Your task to perform on an android device: See recent photos Image 0: 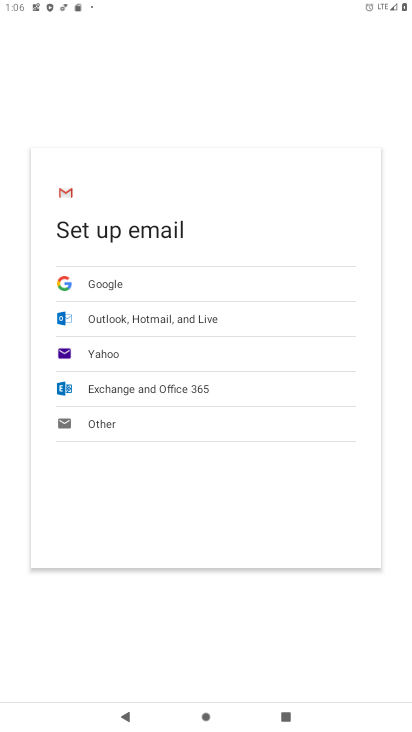
Step 0: press home button
Your task to perform on an android device: See recent photos Image 1: 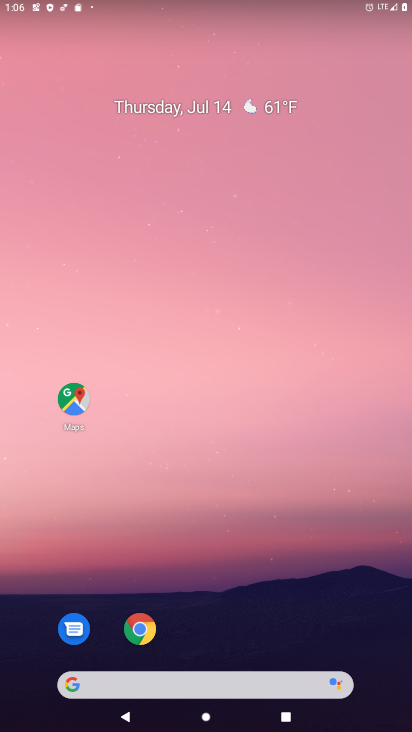
Step 1: drag from (208, 574) to (137, 130)
Your task to perform on an android device: See recent photos Image 2: 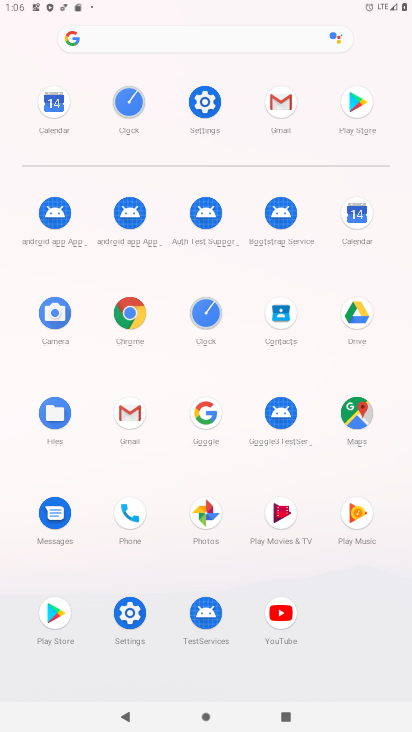
Step 2: click (205, 514)
Your task to perform on an android device: See recent photos Image 3: 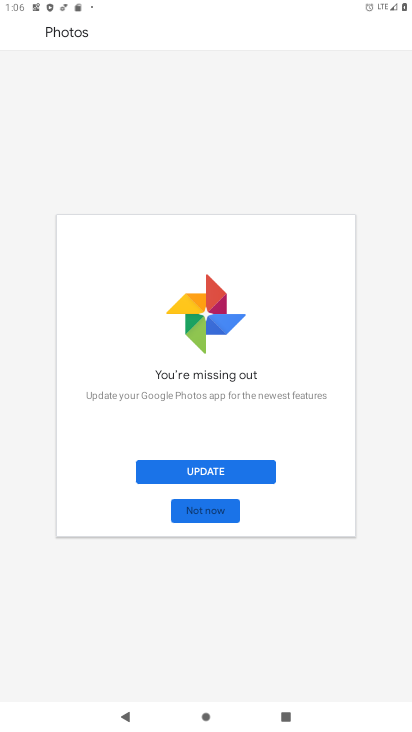
Step 3: click (207, 464)
Your task to perform on an android device: See recent photos Image 4: 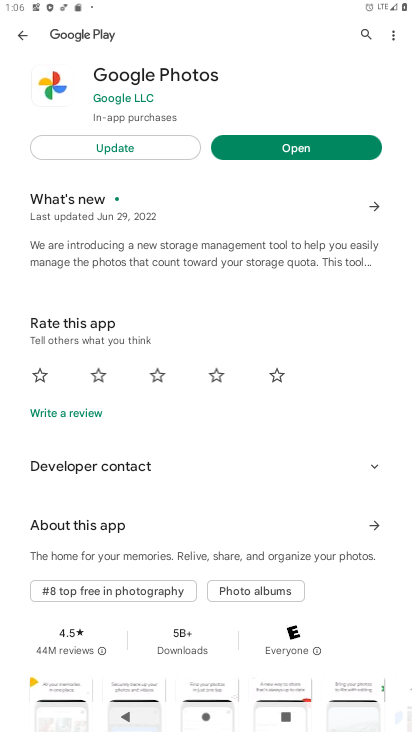
Step 4: click (135, 141)
Your task to perform on an android device: See recent photos Image 5: 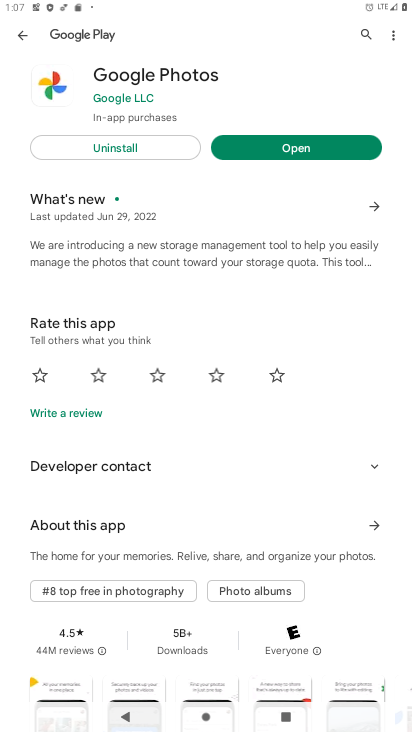
Step 5: click (307, 138)
Your task to perform on an android device: See recent photos Image 6: 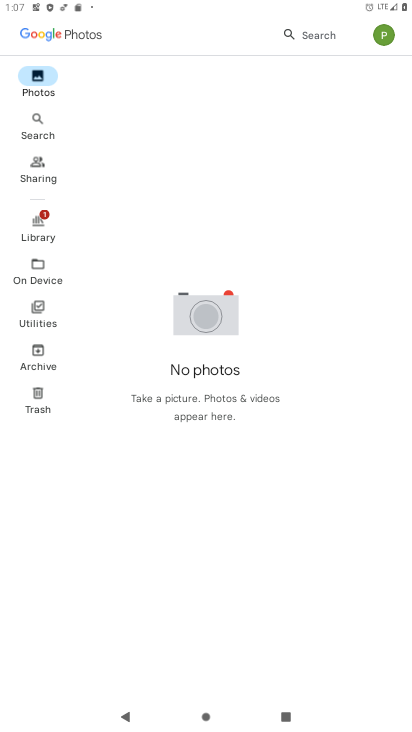
Step 6: task complete